Your task to perform on an android device: star an email in the gmail app Image 0: 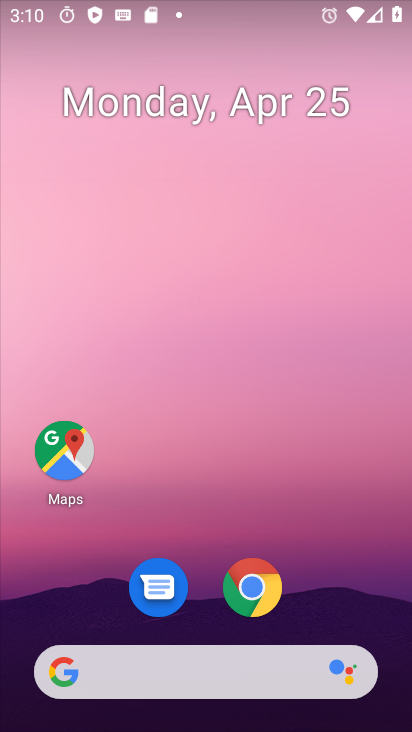
Step 0: drag from (307, 392) to (310, 171)
Your task to perform on an android device: star an email in the gmail app Image 1: 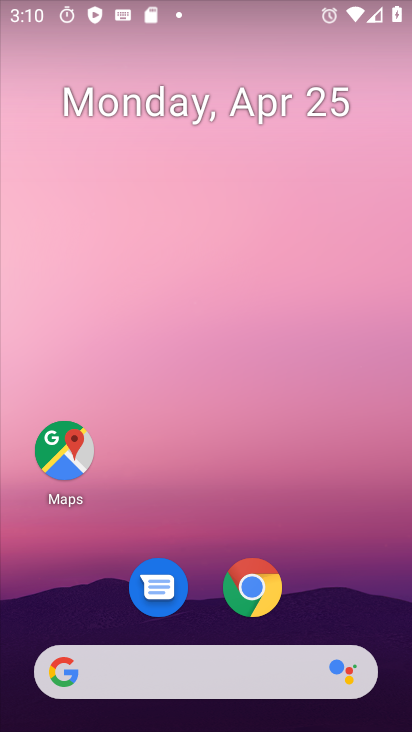
Step 1: drag from (339, 565) to (325, 70)
Your task to perform on an android device: star an email in the gmail app Image 2: 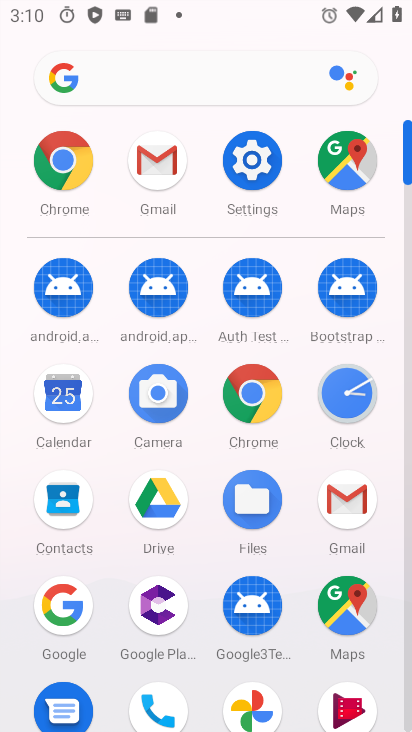
Step 2: click (161, 141)
Your task to perform on an android device: star an email in the gmail app Image 3: 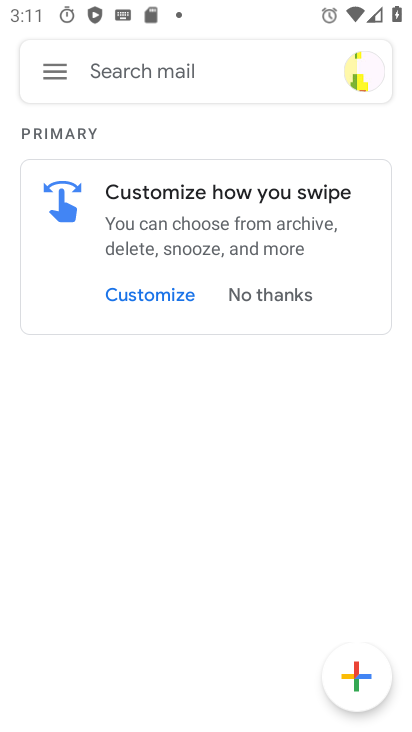
Step 3: click (54, 71)
Your task to perform on an android device: star an email in the gmail app Image 4: 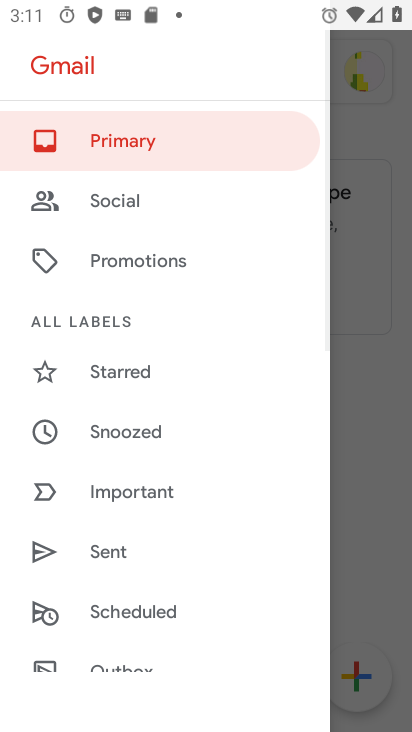
Step 4: drag from (176, 633) to (204, 247)
Your task to perform on an android device: star an email in the gmail app Image 5: 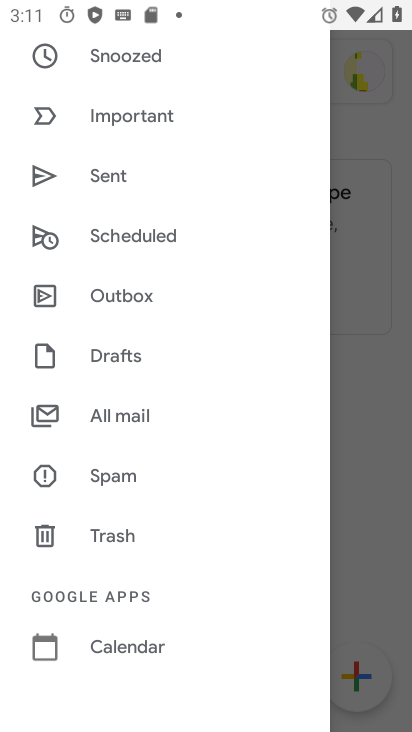
Step 5: click (129, 417)
Your task to perform on an android device: star an email in the gmail app Image 6: 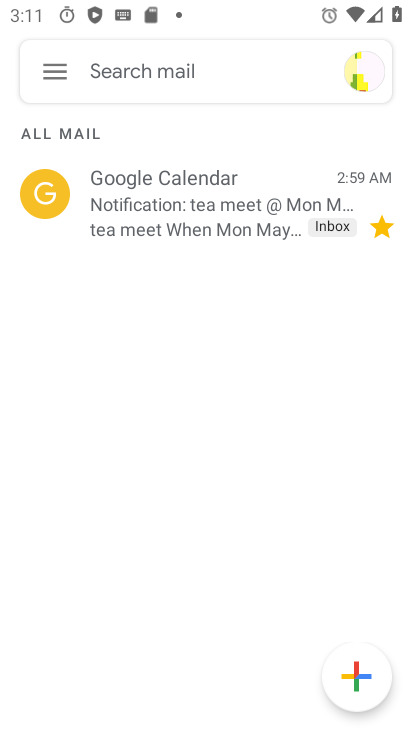
Step 6: task complete